Your task to perform on an android device: change keyboard looks Image 0: 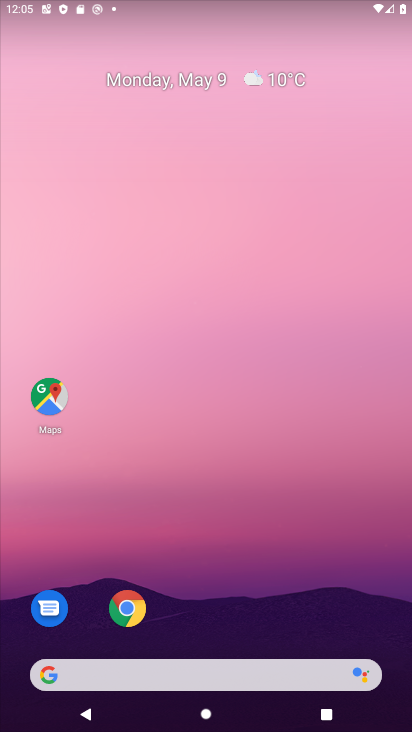
Step 0: drag from (288, 590) to (202, 256)
Your task to perform on an android device: change keyboard looks Image 1: 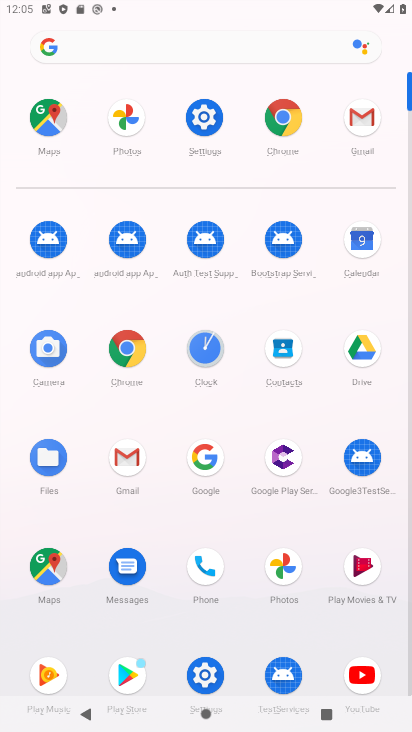
Step 1: click (202, 120)
Your task to perform on an android device: change keyboard looks Image 2: 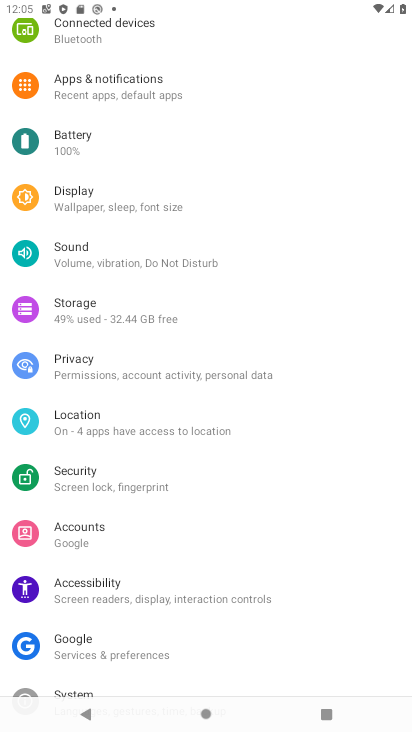
Step 2: drag from (101, 648) to (173, 261)
Your task to perform on an android device: change keyboard looks Image 3: 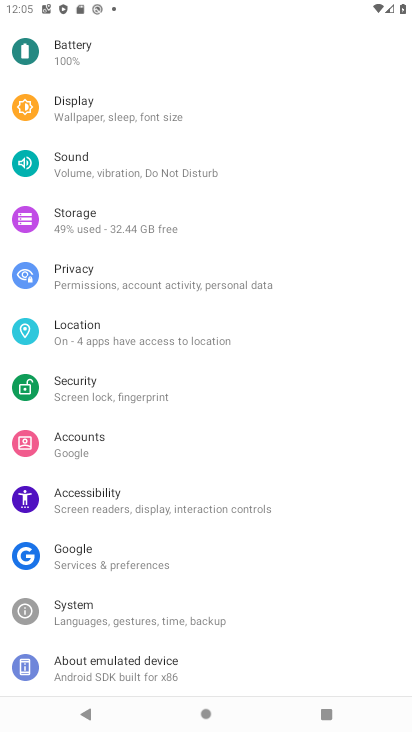
Step 3: click (111, 588)
Your task to perform on an android device: change keyboard looks Image 4: 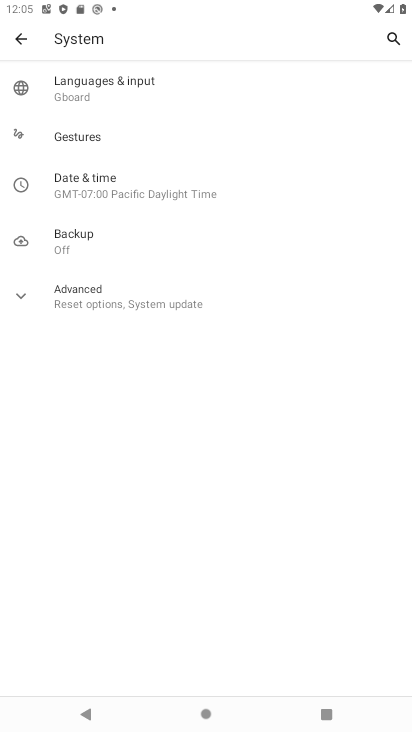
Step 4: click (138, 76)
Your task to perform on an android device: change keyboard looks Image 5: 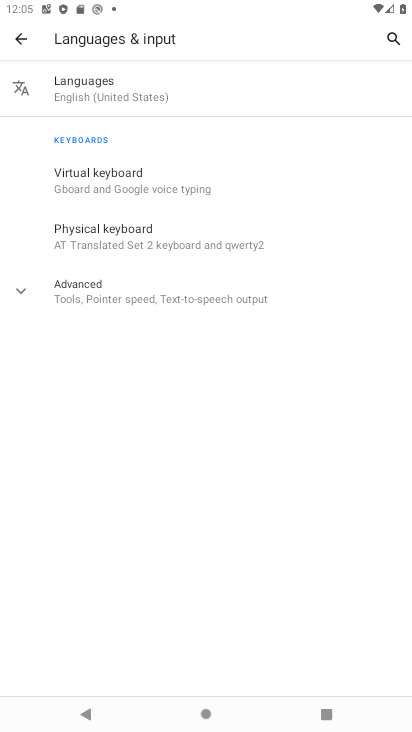
Step 5: click (106, 188)
Your task to perform on an android device: change keyboard looks Image 6: 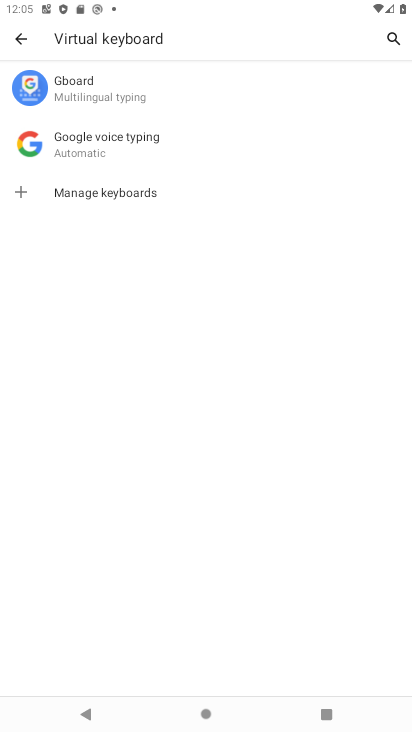
Step 6: click (157, 107)
Your task to perform on an android device: change keyboard looks Image 7: 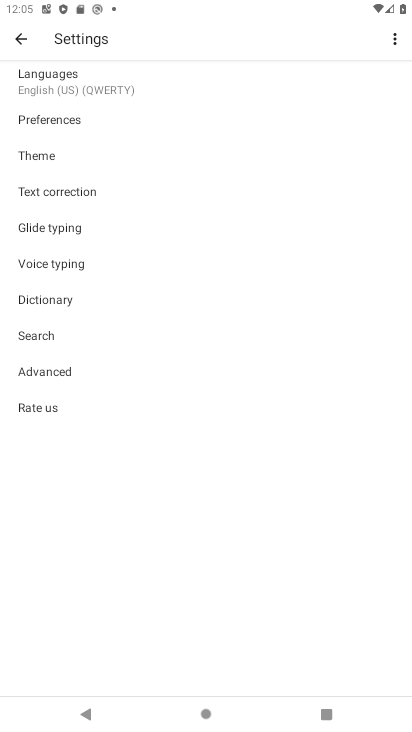
Step 7: click (97, 150)
Your task to perform on an android device: change keyboard looks Image 8: 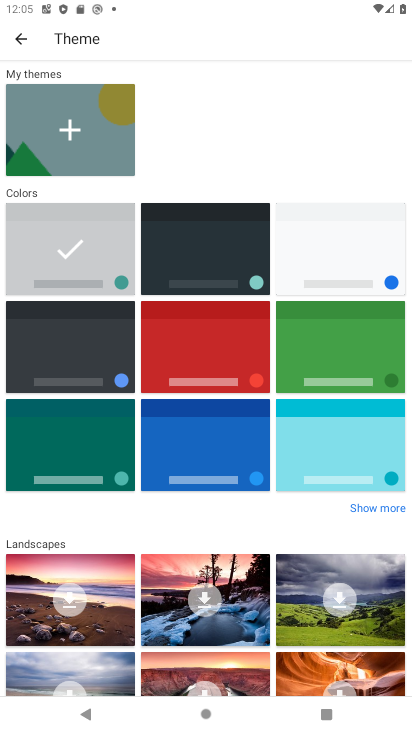
Step 8: click (177, 243)
Your task to perform on an android device: change keyboard looks Image 9: 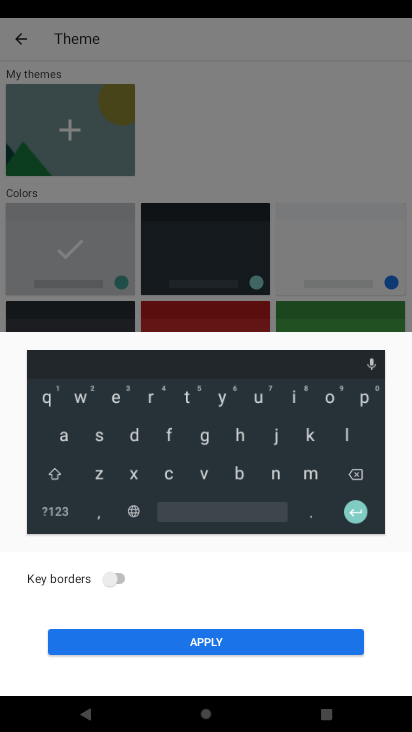
Step 9: click (204, 645)
Your task to perform on an android device: change keyboard looks Image 10: 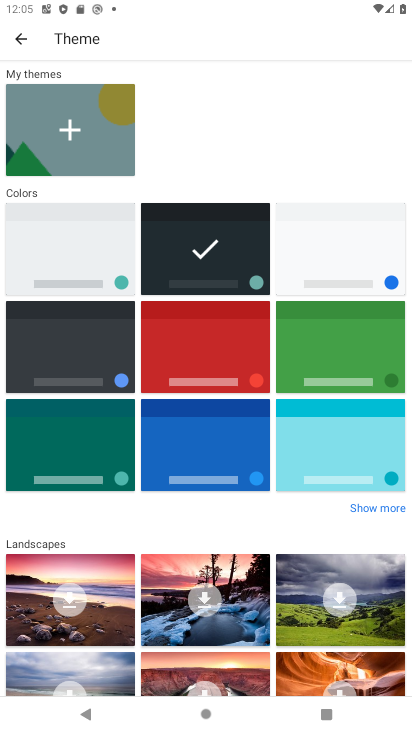
Step 10: task complete